Your task to perform on an android device: Open battery settings Image 0: 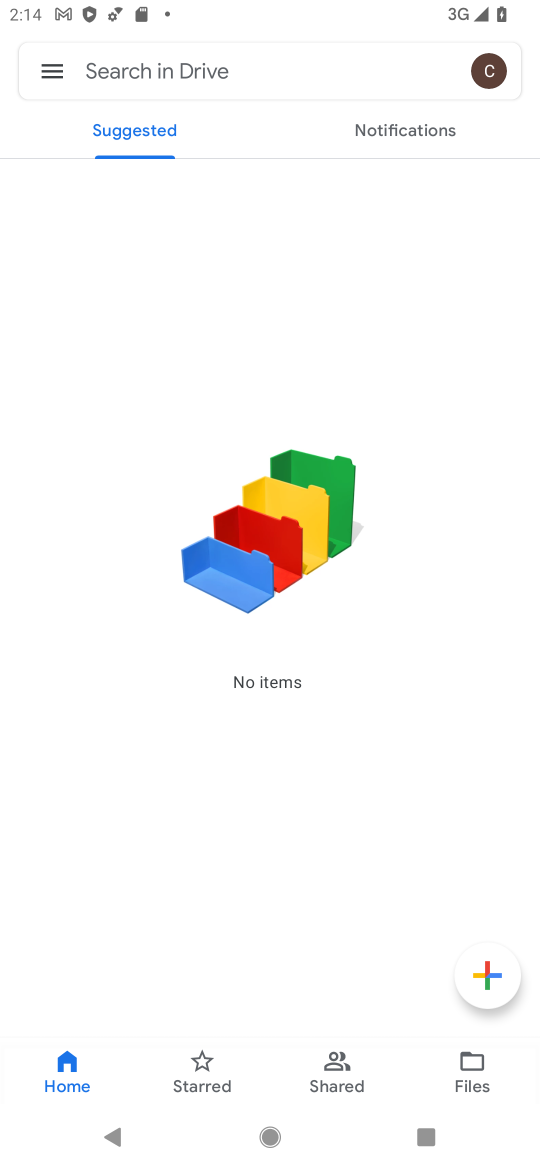
Step 0: press home button
Your task to perform on an android device: Open battery settings Image 1: 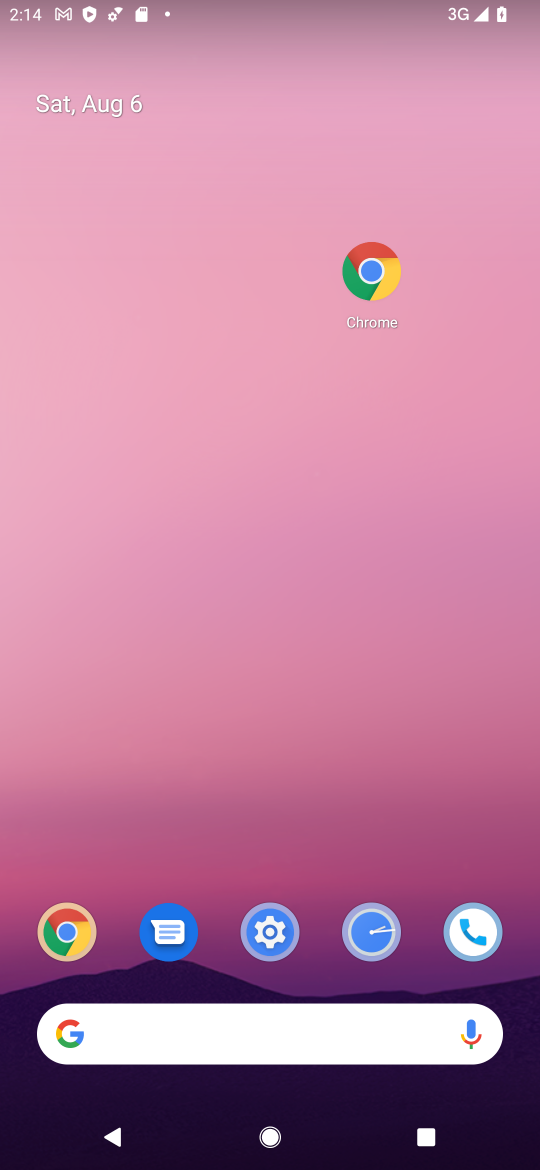
Step 1: click (266, 929)
Your task to perform on an android device: Open battery settings Image 2: 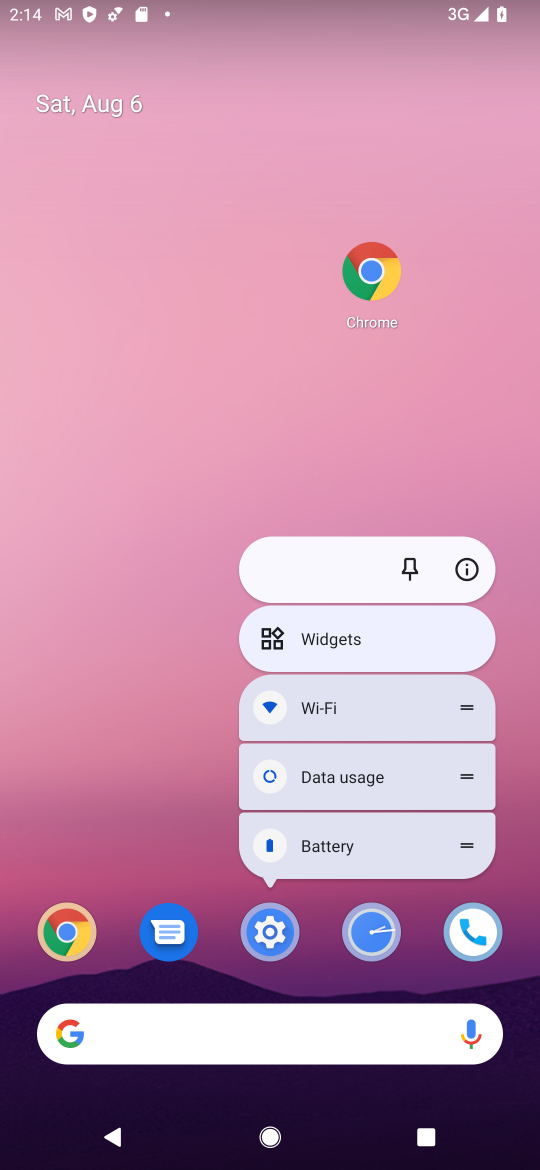
Step 2: click (266, 929)
Your task to perform on an android device: Open battery settings Image 3: 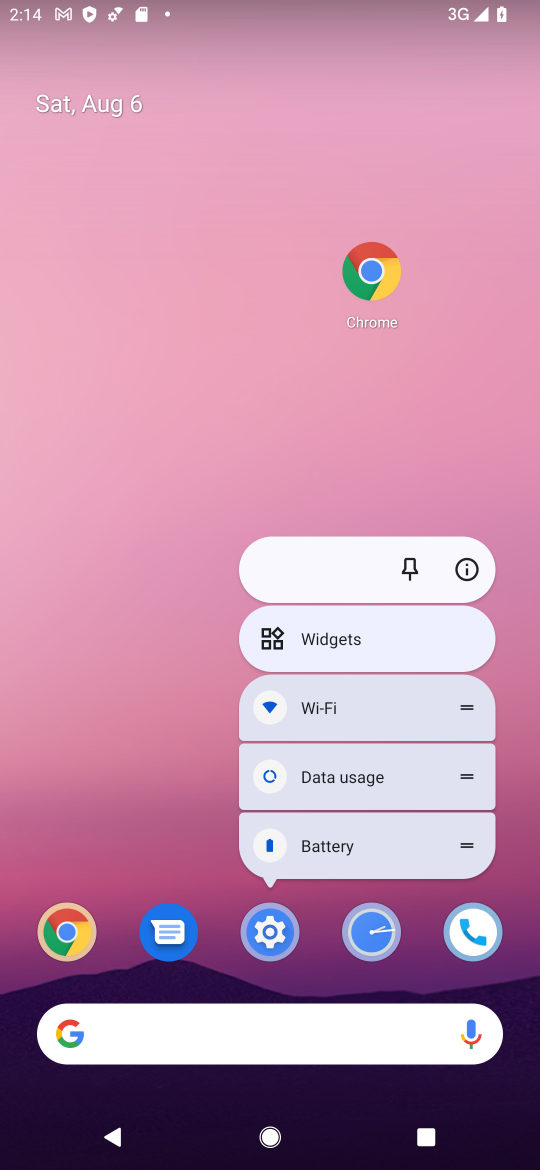
Step 3: click (161, 778)
Your task to perform on an android device: Open battery settings Image 4: 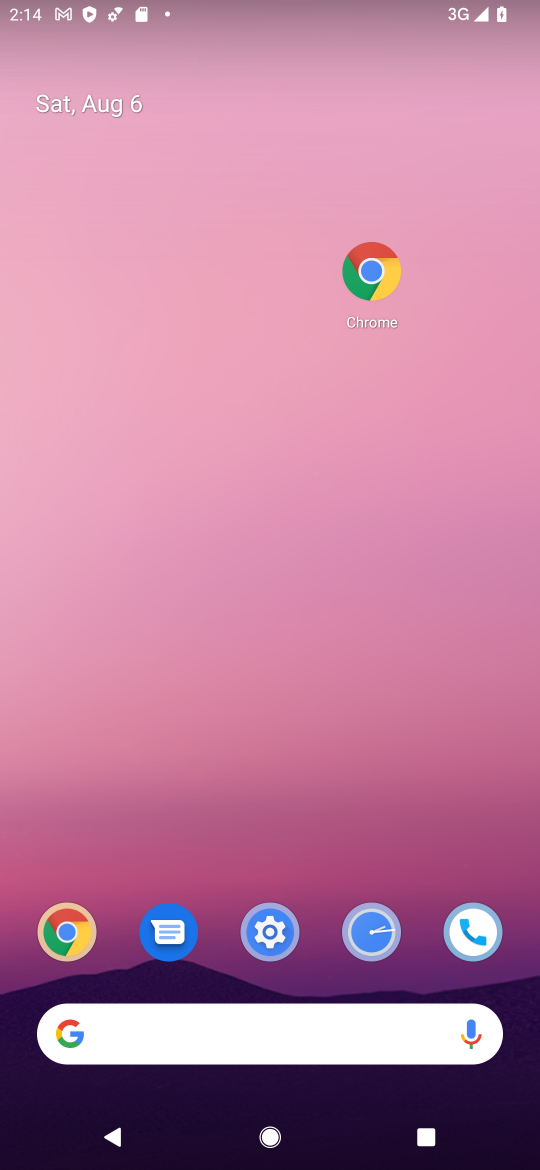
Step 4: drag from (216, 956) to (198, 51)
Your task to perform on an android device: Open battery settings Image 5: 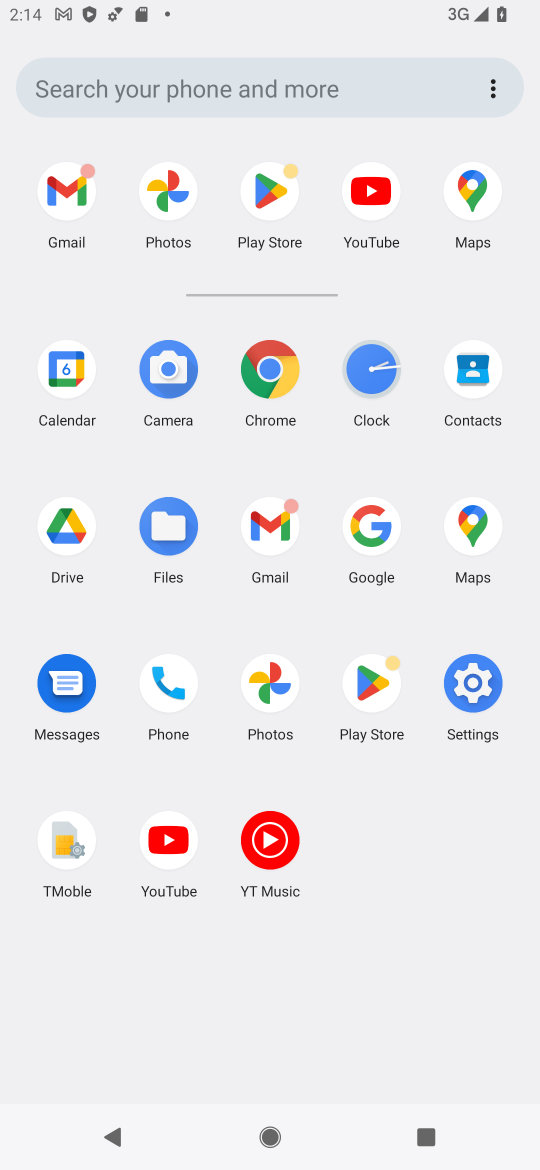
Step 5: click (478, 674)
Your task to perform on an android device: Open battery settings Image 6: 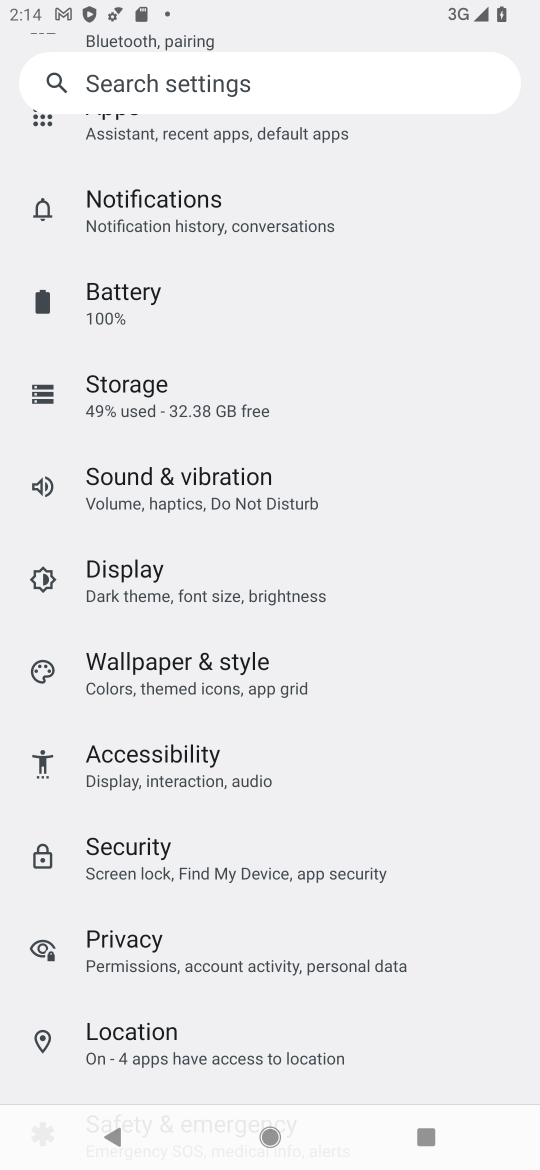
Step 6: click (148, 310)
Your task to perform on an android device: Open battery settings Image 7: 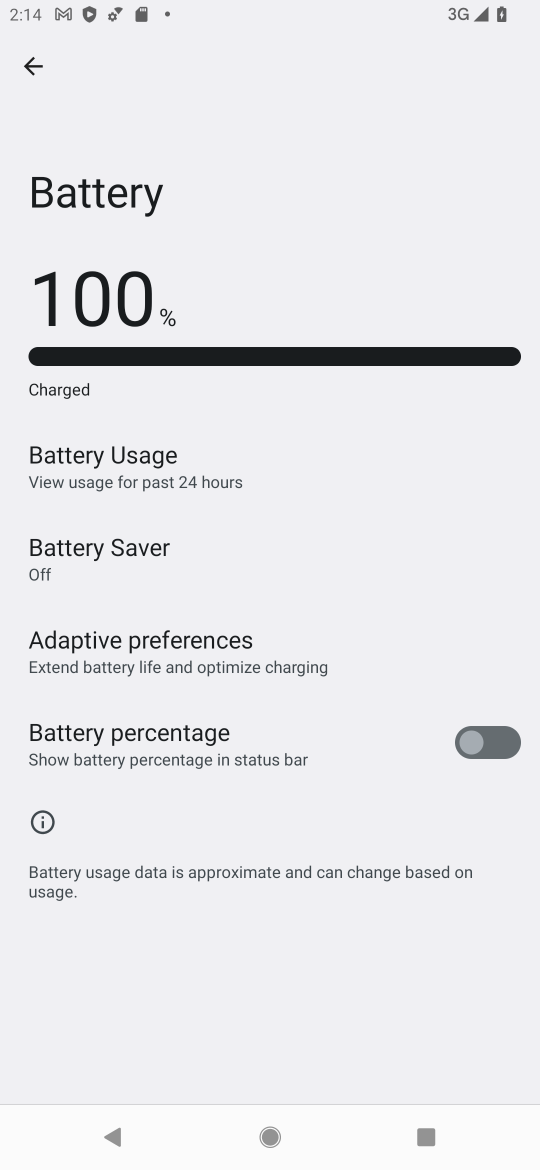
Step 7: task complete